Your task to perform on an android device: set an alarm Image 0: 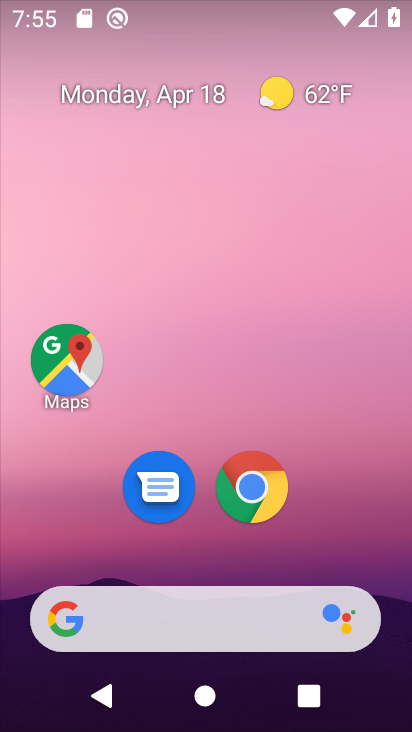
Step 0: press home button
Your task to perform on an android device: set an alarm Image 1: 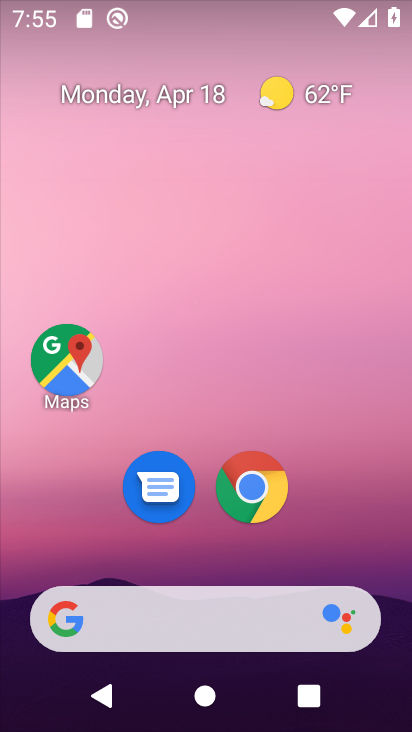
Step 1: drag from (215, 549) to (260, 141)
Your task to perform on an android device: set an alarm Image 2: 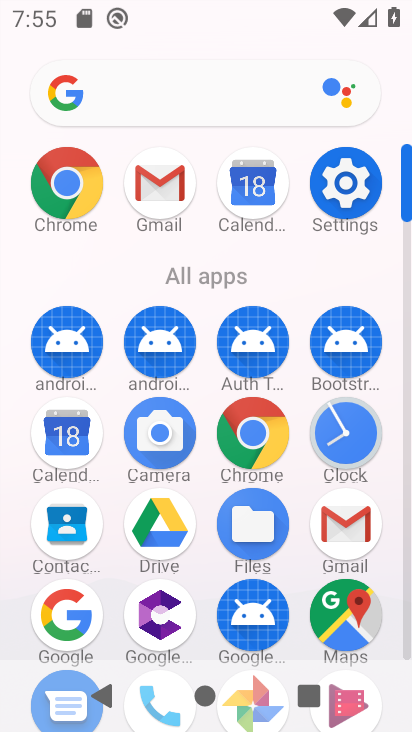
Step 2: click (341, 424)
Your task to perform on an android device: set an alarm Image 3: 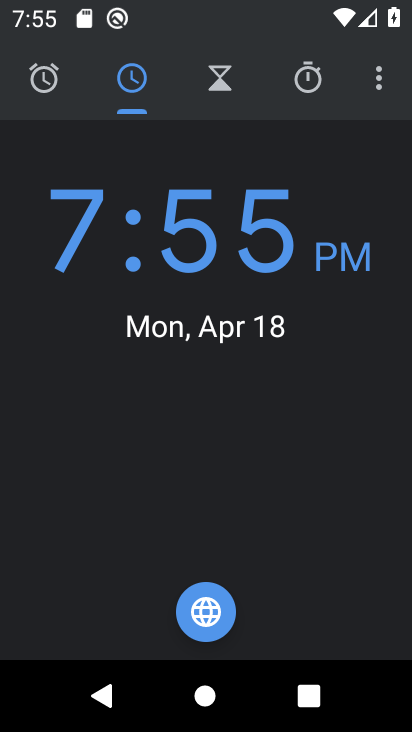
Step 3: click (45, 70)
Your task to perform on an android device: set an alarm Image 4: 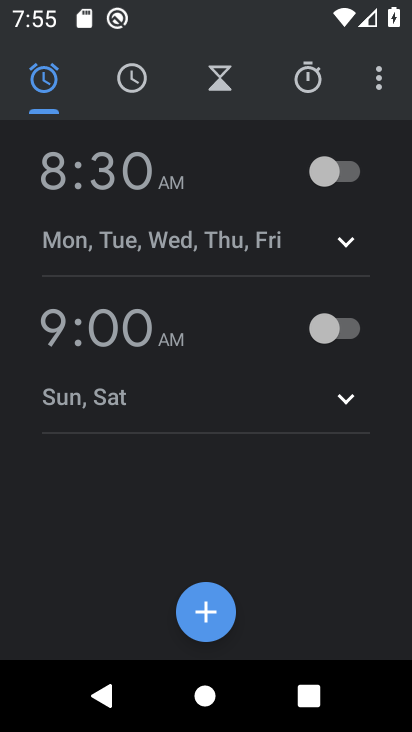
Step 4: click (124, 170)
Your task to perform on an android device: set an alarm Image 5: 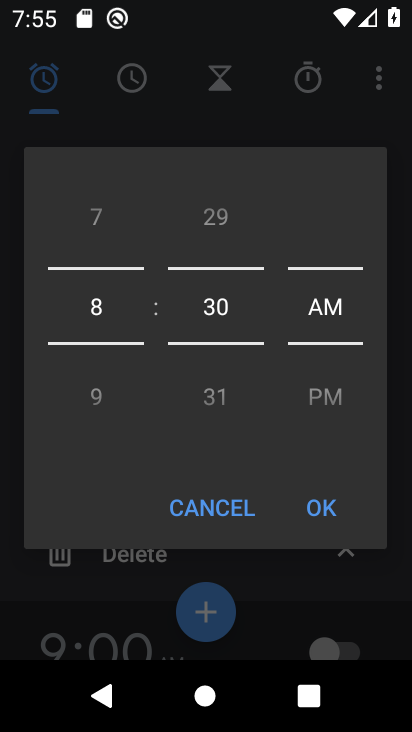
Step 5: click (316, 503)
Your task to perform on an android device: set an alarm Image 6: 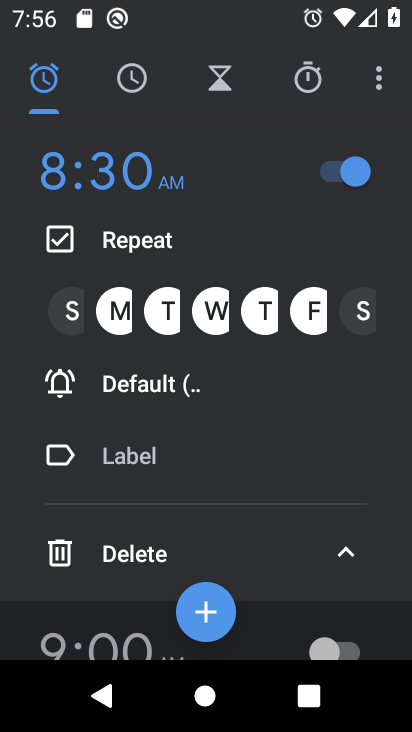
Step 6: click (74, 306)
Your task to perform on an android device: set an alarm Image 7: 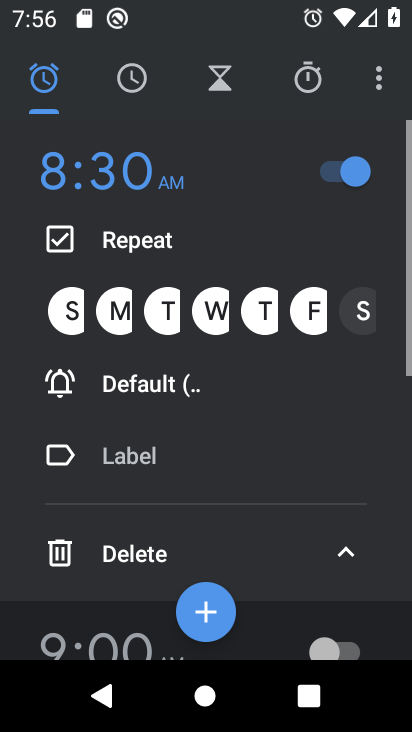
Step 7: click (365, 301)
Your task to perform on an android device: set an alarm Image 8: 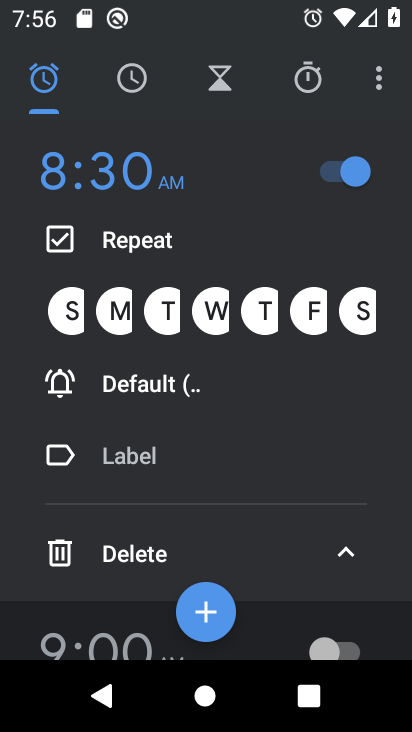
Step 8: click (112, 381)
Your task to perform on an android device: set an alarm Image 9: 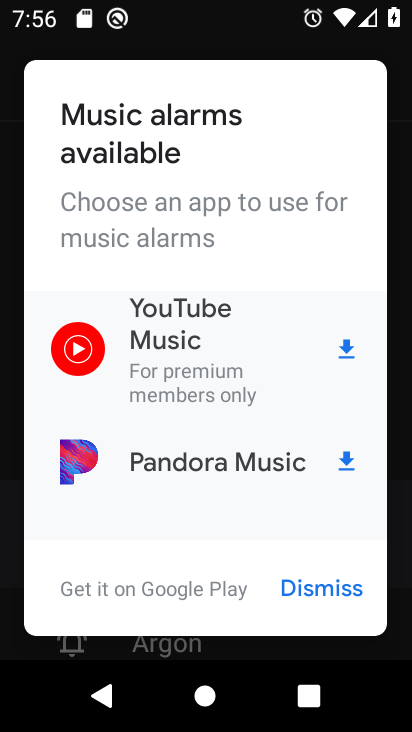
Step 9: click (330, 586)
Your task to perform on an android device: set an alarm Image 10: 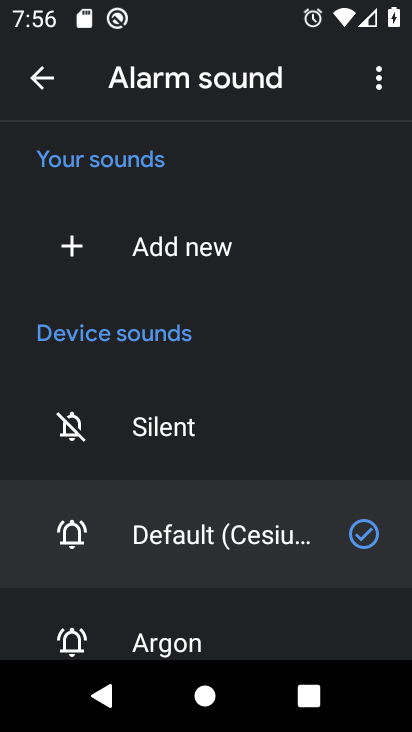
Step 10: click (230, 621)
Your task to perform on an android device: set an alarm Image 11: 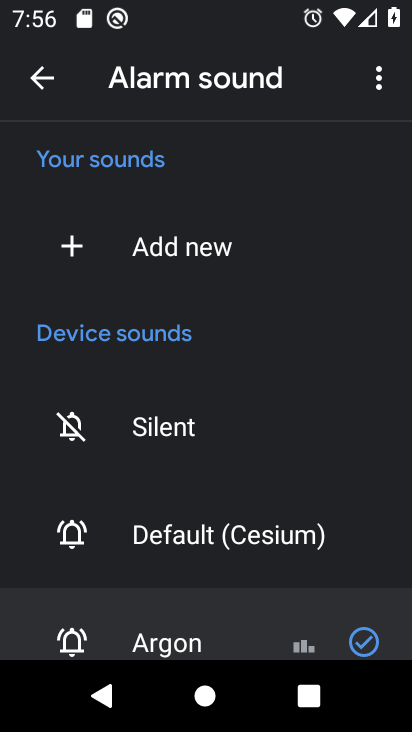
Step 11: click (46, 88)
Your task to perform on an android device: set an alarm Image 12: 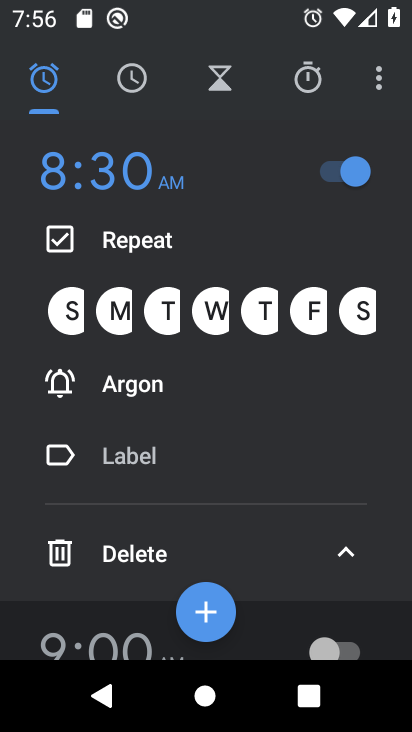
Step 12: click (176, 176)
Your task to perform on an android device: set an alarm Image 13: 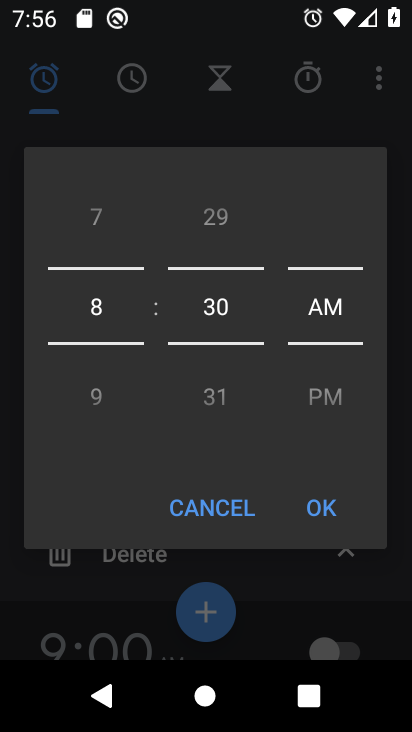
Step 13: click (314, 508)
Your task to perform on an android device: set an alarm Image 14: 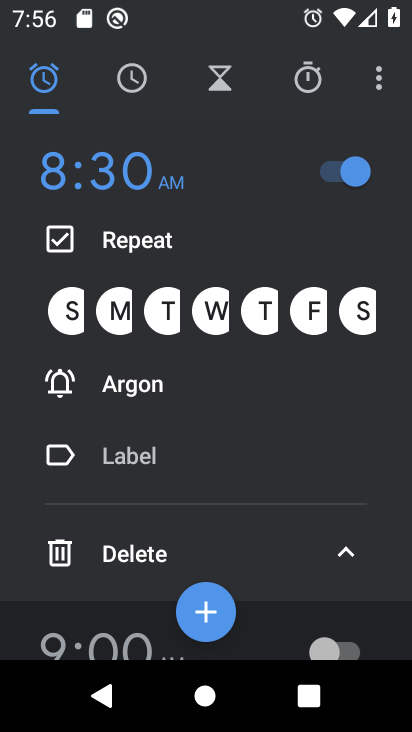
Step 14: task complete